Your task to perform on an android device: open chrome and create a bookmark for the current page Image 0: 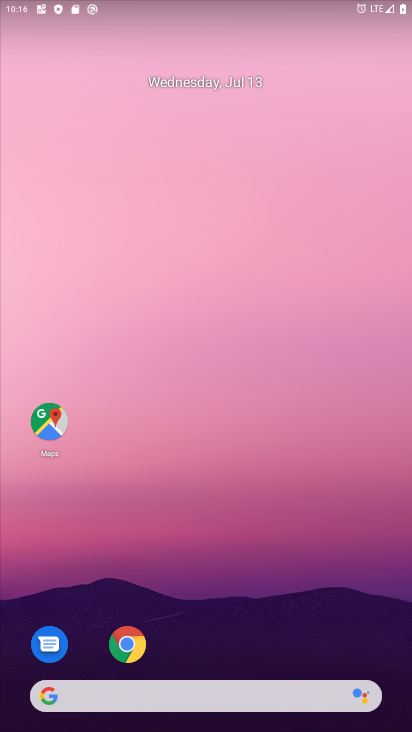
Step 0: drag from (228, 691) to (278, 178)
Your task to perform on an android device: open chrome and create a bookmark for the current page Image 1: 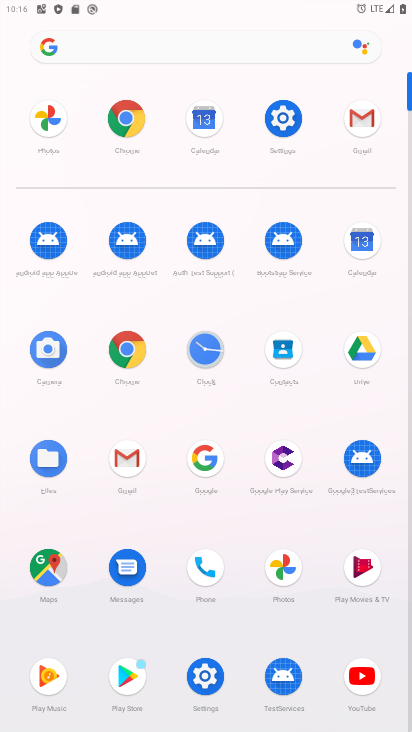
Step 1: click (129, 348)
Your task to perform on an android device: open chrome and create a bookmark for the current page Image 2: 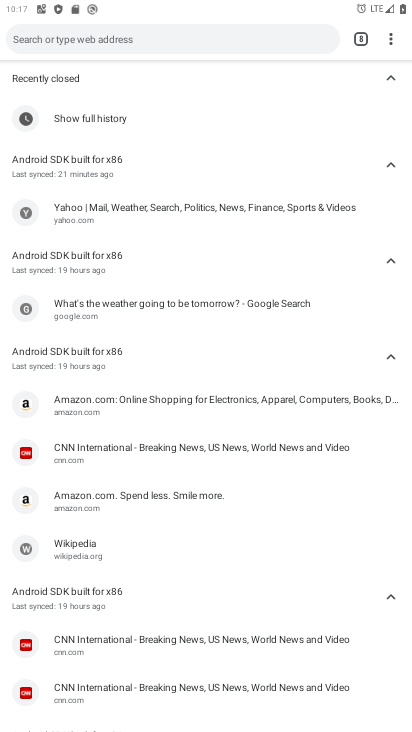
Step 2: click (391, 39)
Your task to perform on an android device: open chrome and create a bookmark for the current page Image 3: 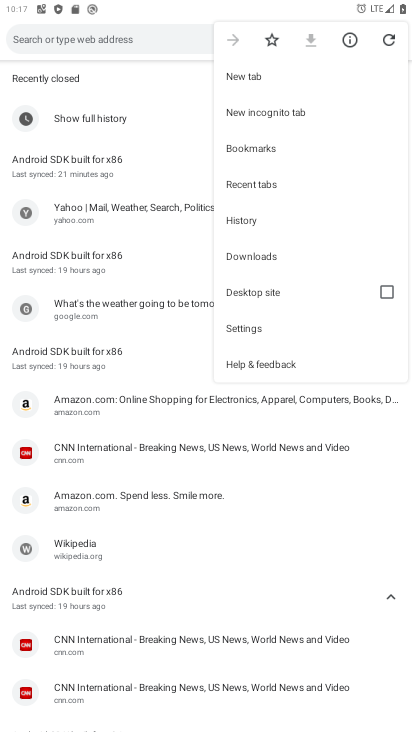
Step 3: click (270, 35)
Your task to perform on an android device: open chrome and create a bookmark for the current page Image 4: 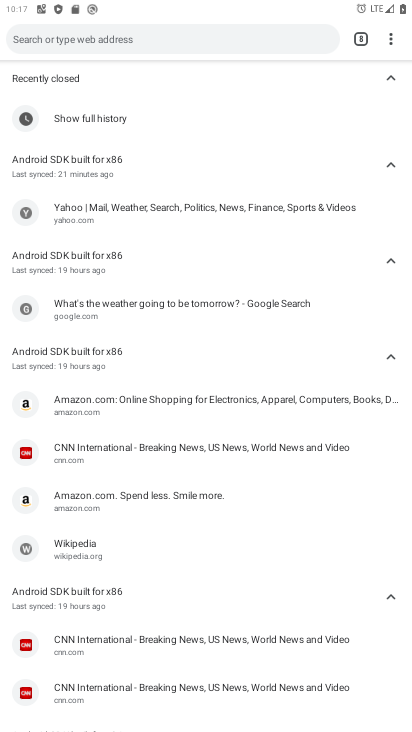
Step 4: task complete